Your task to perform on an android device: Open Chrome and go to settings Image 0: 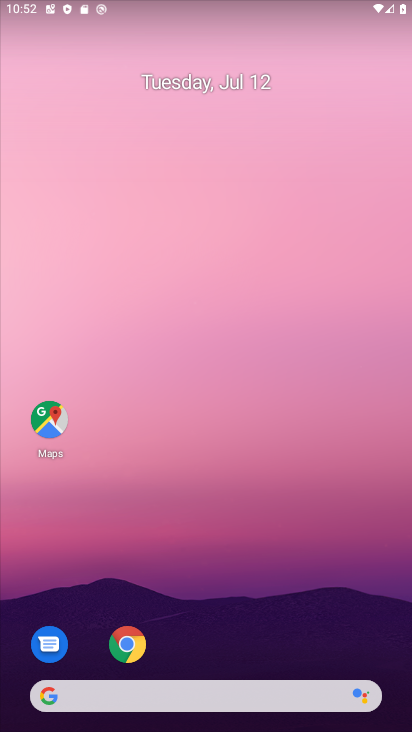
Step 0: drag from (267, 643) to (196, 210)
Your task to perform on an android device: Open Chrome and go to settings Image 1: 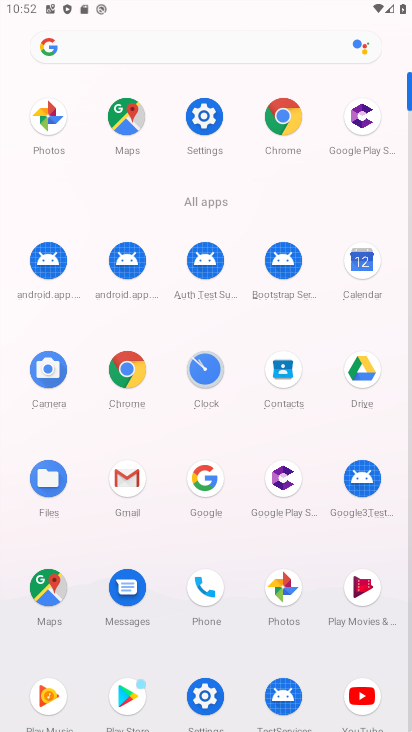
Step 1: click (296, 123)
Your task to perform on an android device: Open Chrome and go to settings Image 2: 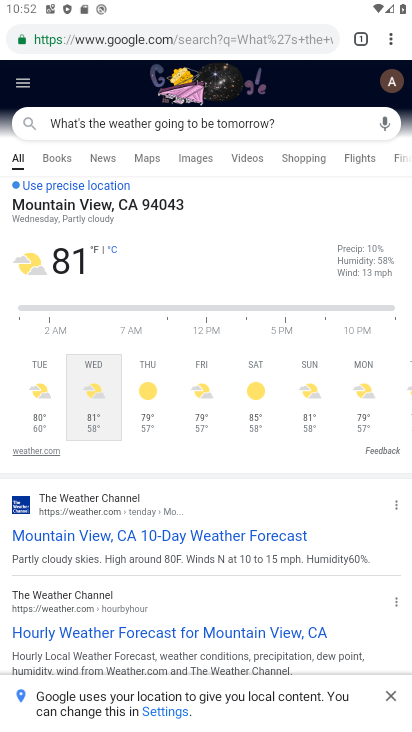
Step 2: click (395, 39)
Your task to perform on an android device: Open Chrome and go to settings Image 3: 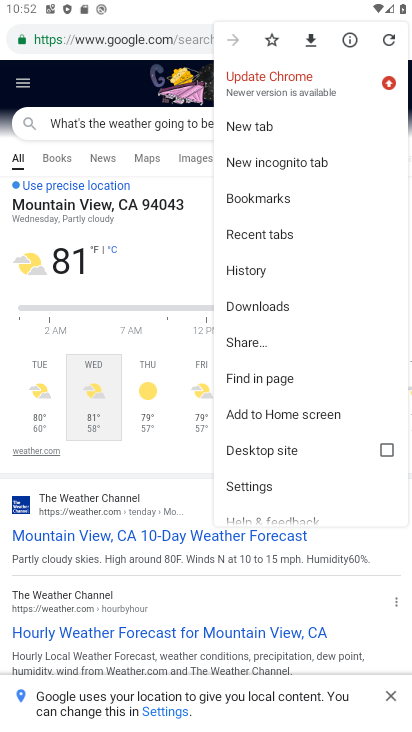
Step 3: click (308, 492)
Your task to perform on an android device: Open Chrome and go to settings Image 4: 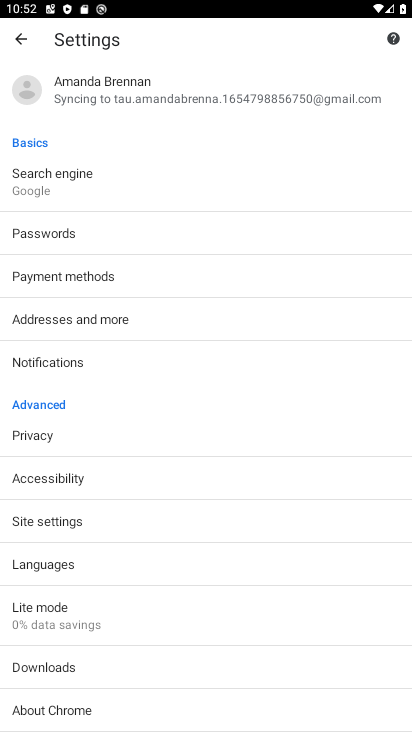
Step 4: task complete